Your task to perform on an android device: move an email to a new category in the gmail app Image 0: 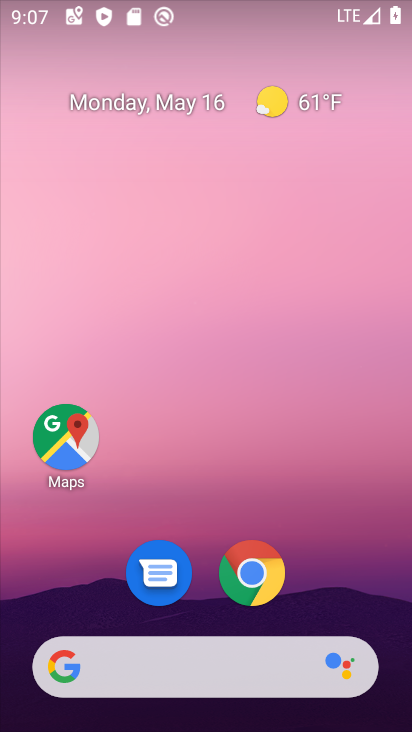
Step 0: drag from (239, 720) to (176, 162)
Your task to perform on an android device: move an email to a new category in the gmail app Image 1: 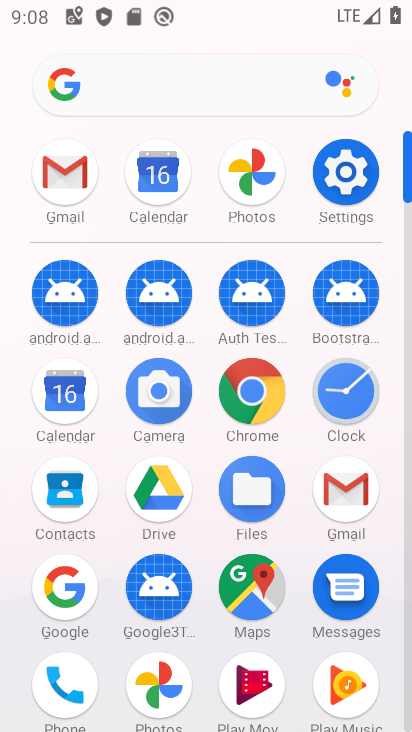
Step 1: click (353, 486)
Your task to perform on an android device: move an email to a new category in the gmail app Image 2: 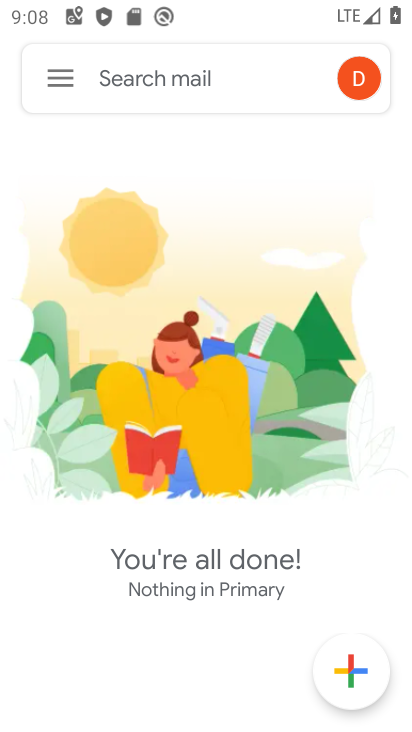
Step 2: task complete